Your task to perform on an android device: open app "Yahoo Mail" Image 0: 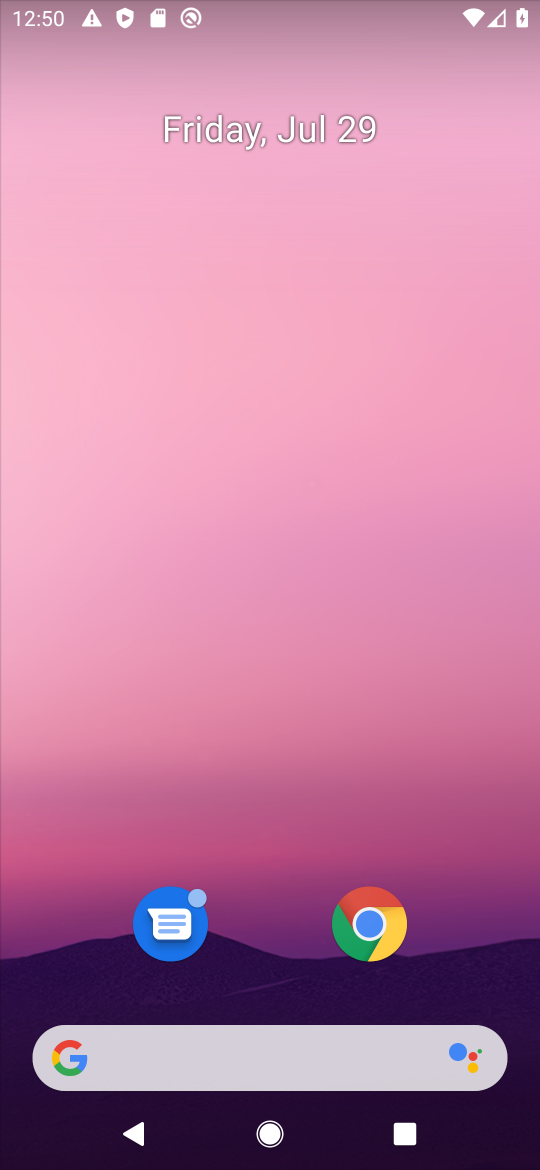
Step 0: drag from (231, 1060) to (190, 22)
Your task to perform on an android device: open app "Yahoo Mail" Image 1: 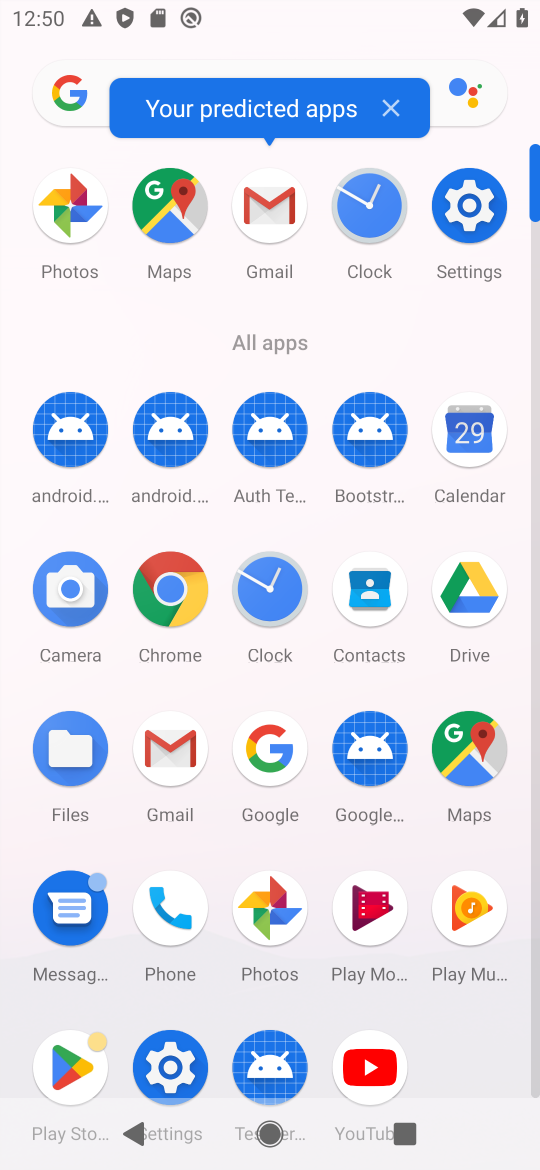
Step 1: click (66, 1054)
Your task to perform on an android device: open app "Yahoo Mail" Image 2: 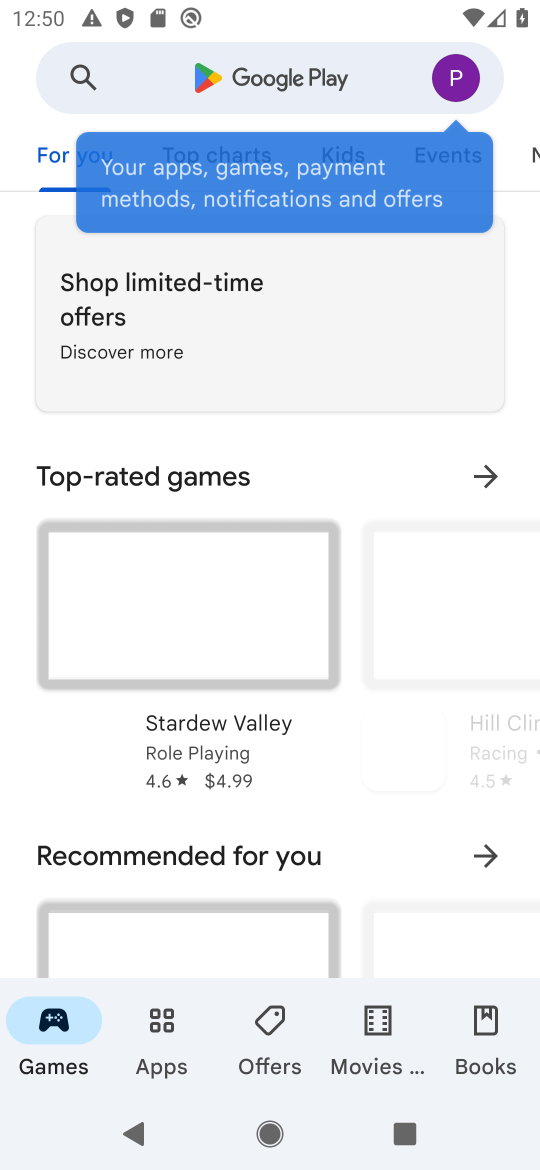
Step 2: click (240, 90)
Your task to perform on an android device: open app "Yahoo Mail" Image 3: 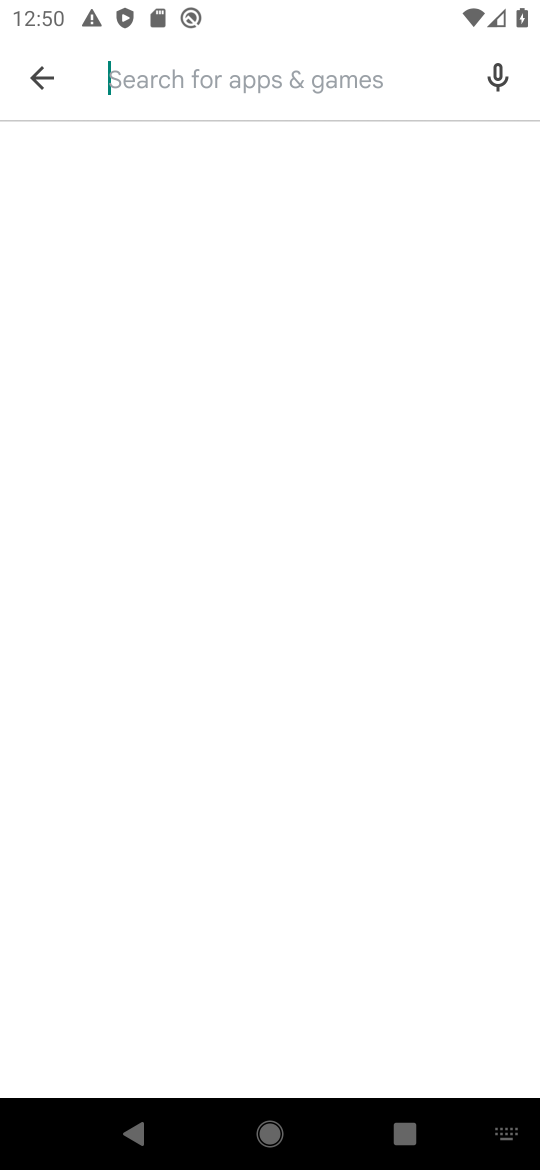
Step 3: type "yahoo mail"
Your task to perform on an android device: open app "Yahoo Mail" Image 4: 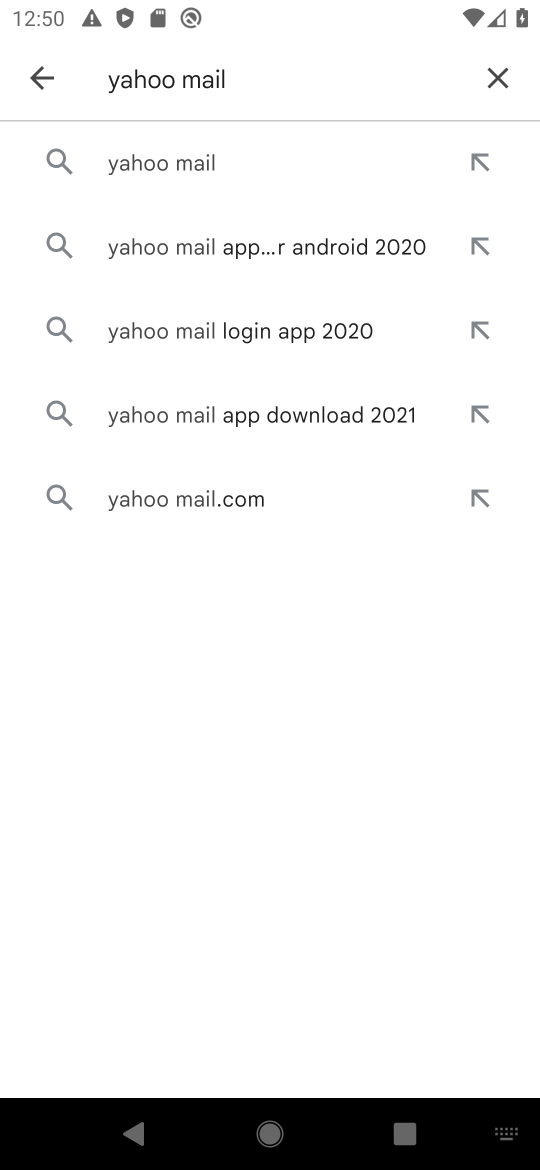
Step 4: click (185, 160)
Your task to perform on an android device: open app "Yahoo Mail" Image 5: 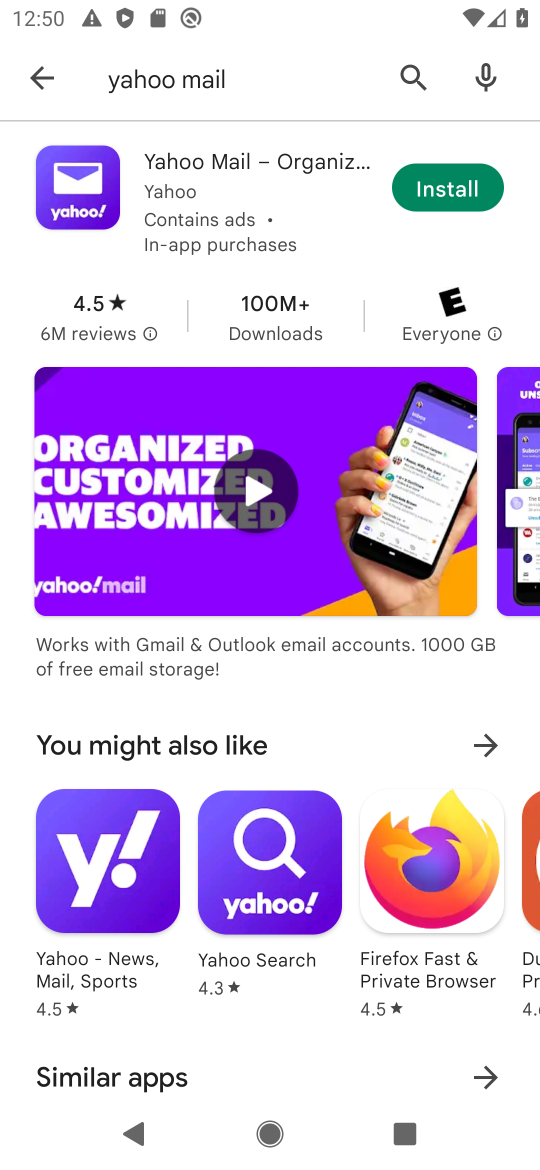
Step 5: task complete